Your task to perform on an android device: Open calendar and show me the second week of next month Image 0: 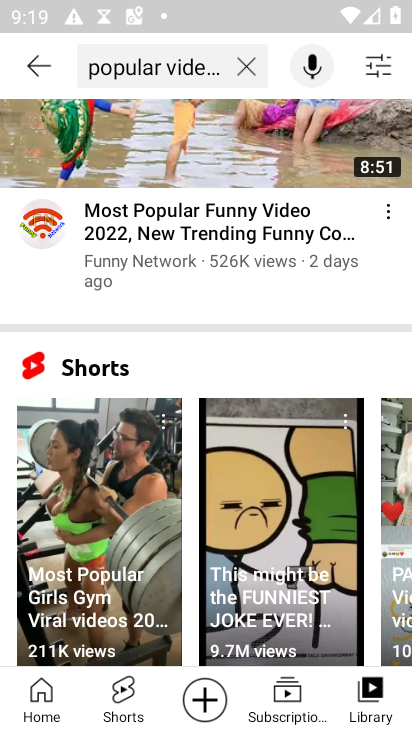
Step 0: press home button
Your task to perform on an android device: Open calendar and show me the second week of next month Image 1: 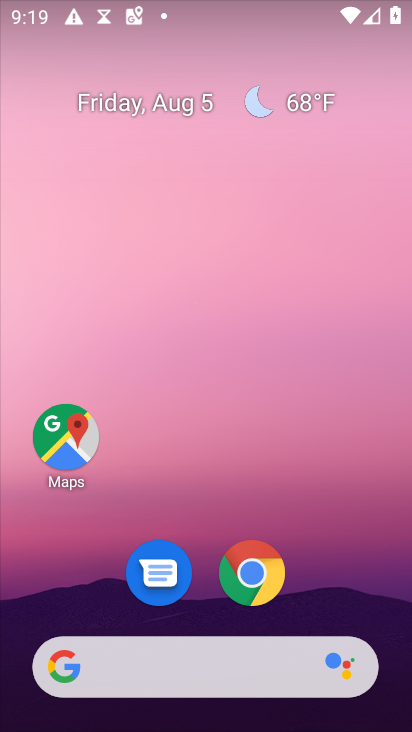
Step 1: drag from (191, 679) to (341, 56)
Your task to perform on an android device: Open calendar and show me the second week of next month Image 2: 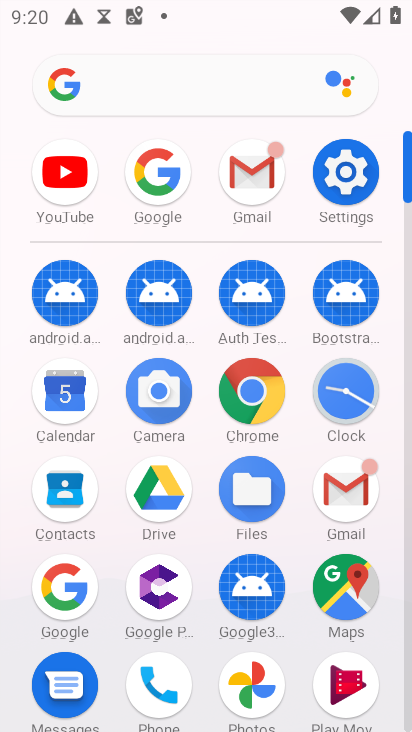
Step 2: click (68, 394)
Your task to perform on an android device: Open calendar and show me the second week of next month Image 3: 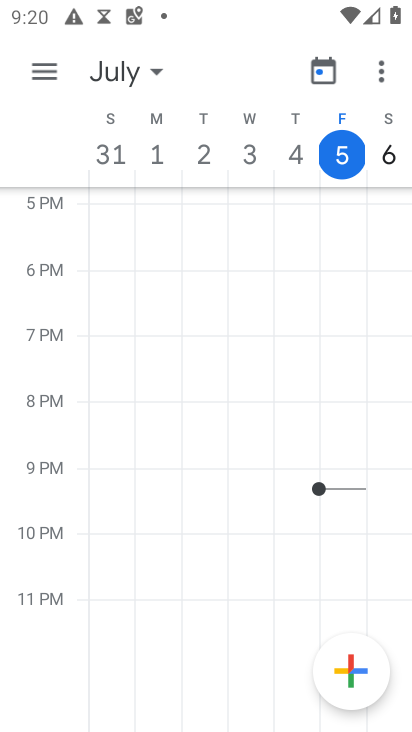
Step 3: click (156, 71)
Your task to perform on an android device: Open calendar and show me the second week of next month Image 4: 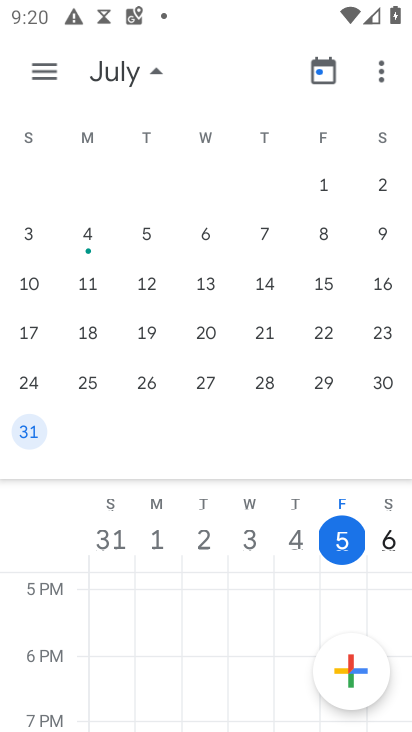
Step 4: drag from (364, 348) to (5, 353)
Your task to perform on an android device: Open calendar and show me the second week of next month Image 5: 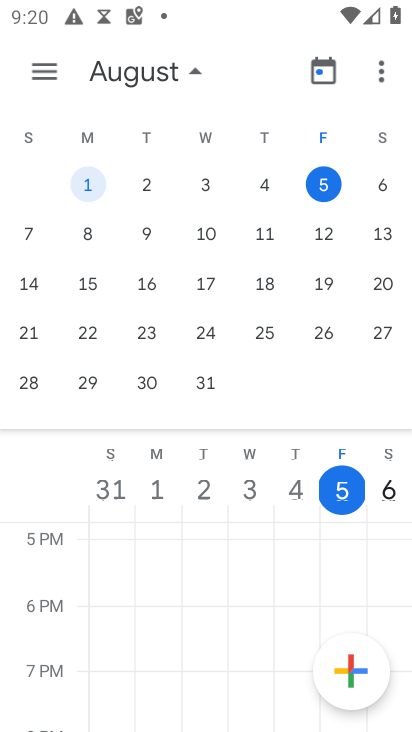
Step 5: drag from (380, 316) to (0, 375)
Your task to perform on an android device: Open calendar and show me the second week of next month Image 6: 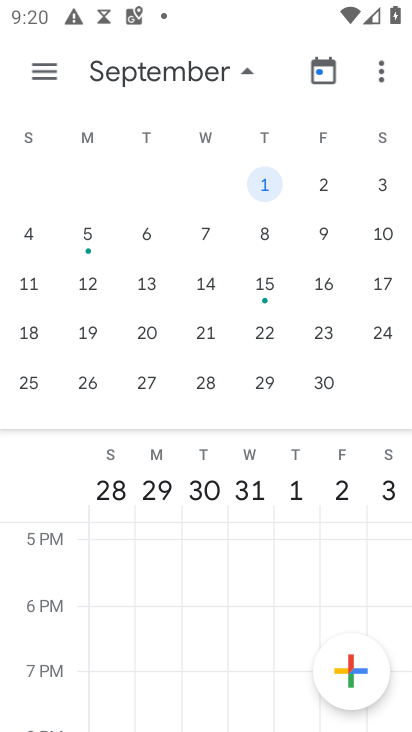
Step 6: click (96, 288)
Your task to perform on an android device: Open calendar and show me the second week of next month Image 7: 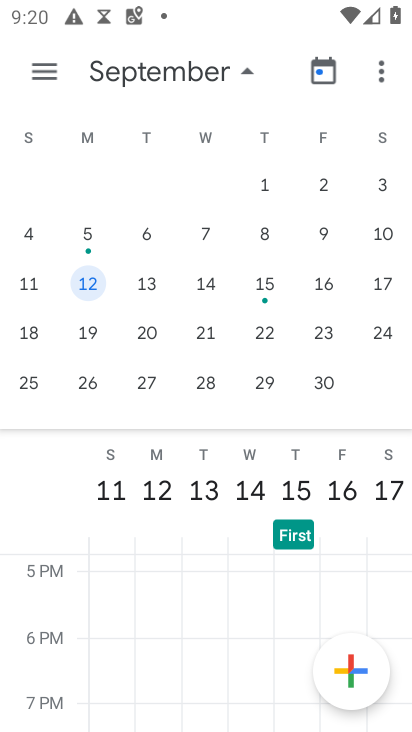
Step 7: click (42, 78)
Your task to perform on an android device: Open calendar and show me the second week of next month Image 8: 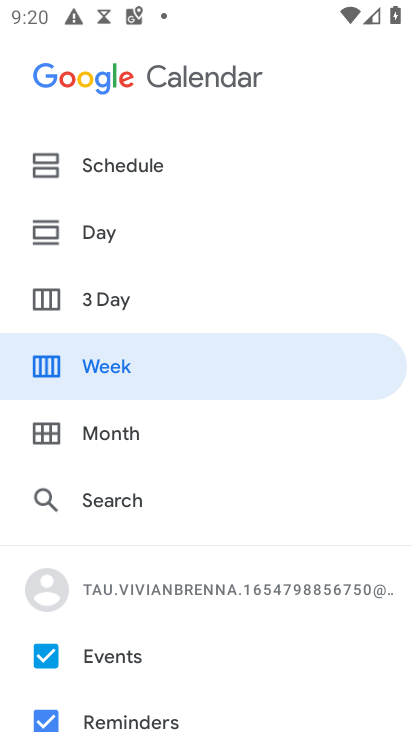
Step 8: click (113, 372)
Your task to perform on an android device: Open calendar and show me the second week of next month Image 9: 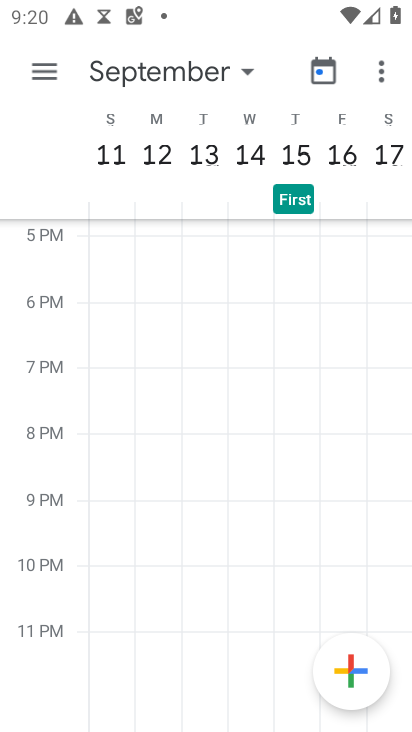
Step 9: task complete